Your task to perform on an android device: change notifications settings Image 0: 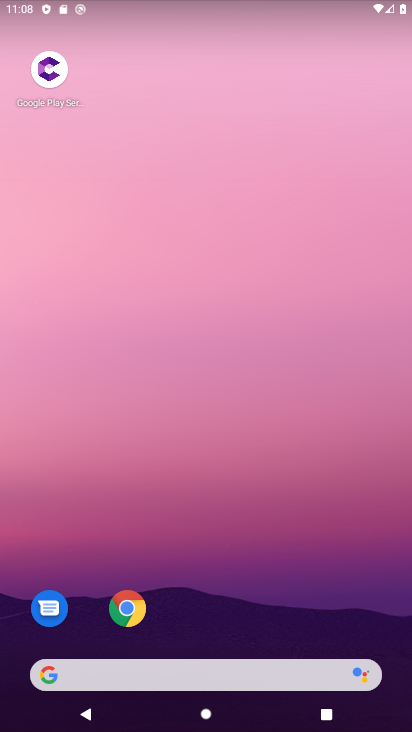
Step 0: click (291, 528)
Your task to perform on an android device: change notifications settings Image 1: 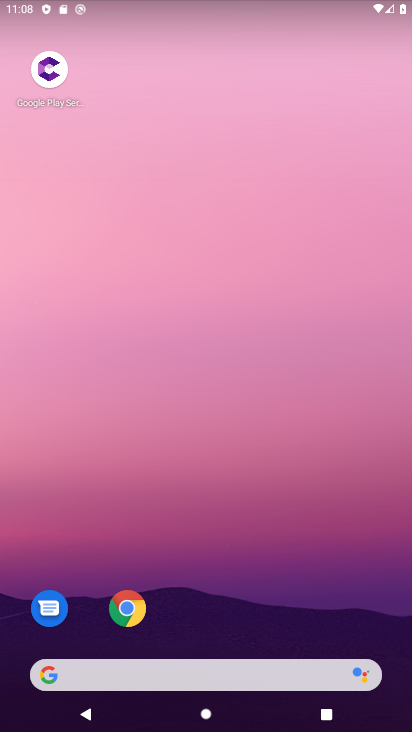
Step 1: drag from (291, 584) to (190, 16)
Your task to perform on an android device: change notifications settings Image 2: 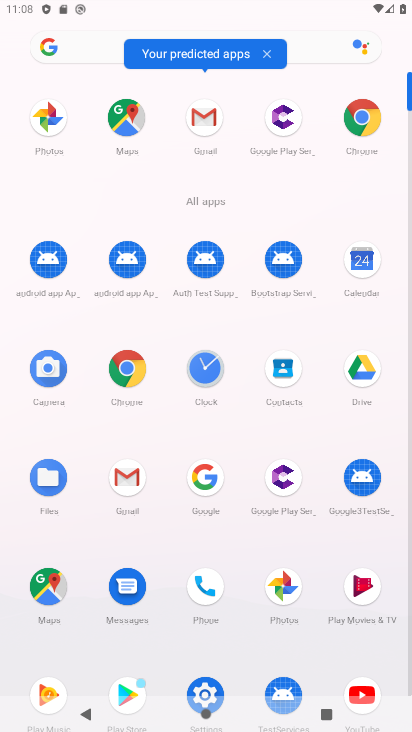
Step 2: click (199, 683)
Your task to perform on an android device: change notifications settings Image 3: 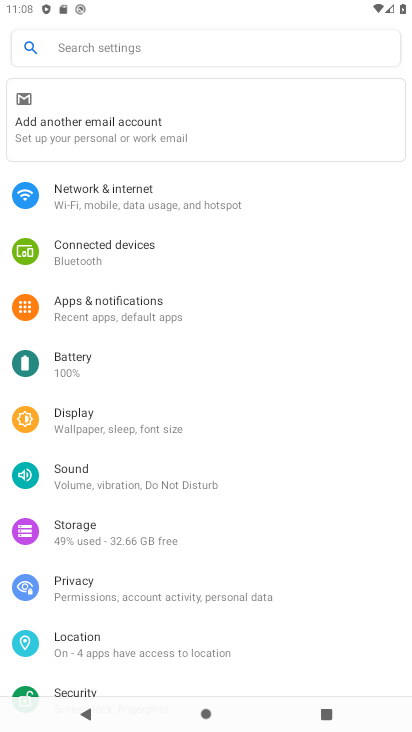
Step 3: click (185, 319)
Your task to perform on an android device: change notifications settings Image 4: 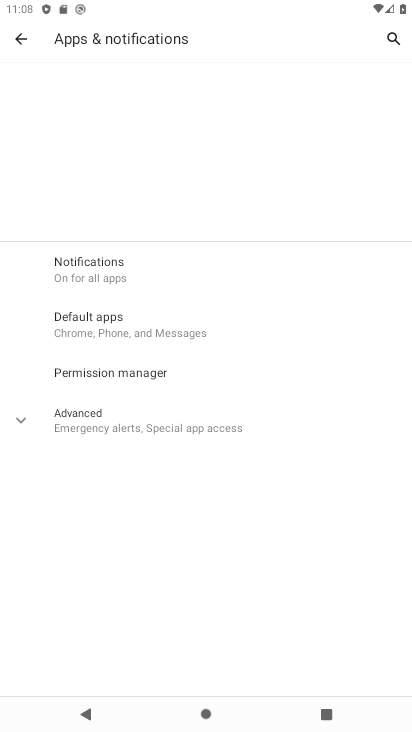
Step 4: task complete